Your task to perform on an android device: check data usage Image 0: 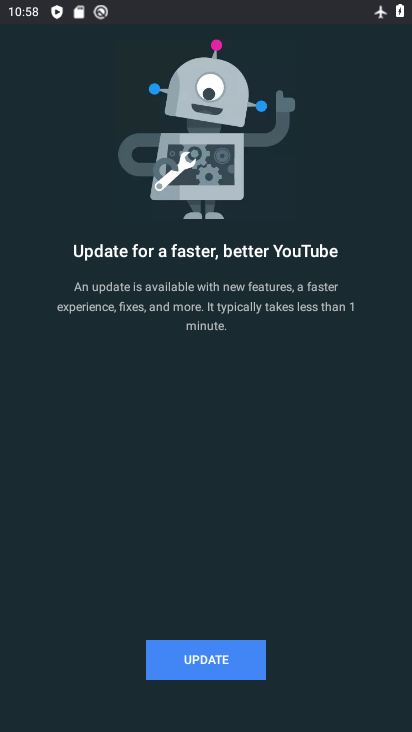
Step 0: press home button
Your task to perform on an android device: check data usage Image 1: 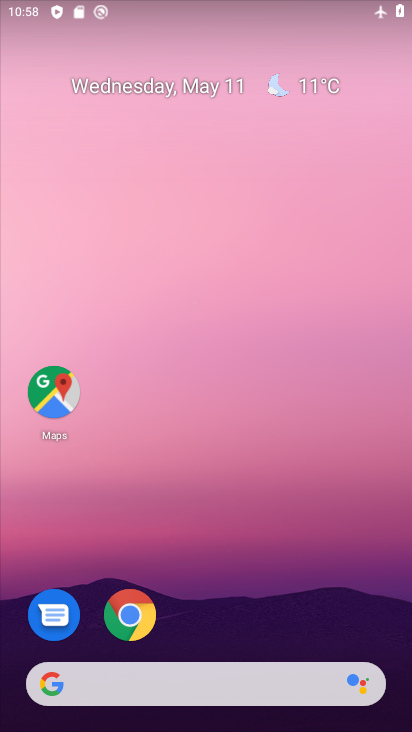
Step 1: drag from (288, 581) to (234, 43)
Your task to perform on an android device: check data usage Image 2: 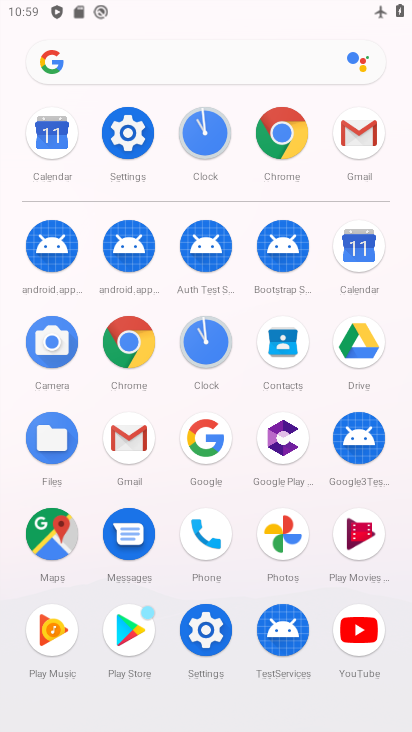
Step 2: click (138, 132)
Your task to perform on an android device: check data usage Image 3: 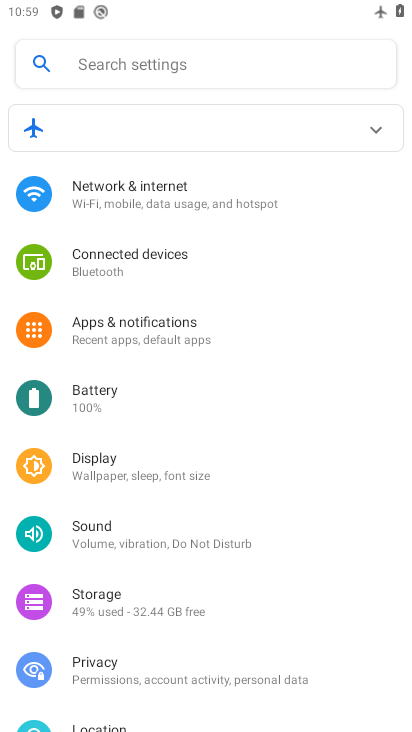
Step 3: click (122, 183)
Your task to perform on an android device: check data usage Image 4: 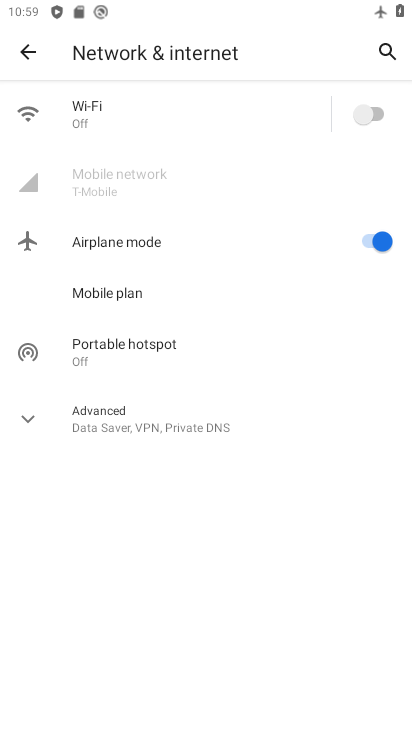
Step 4: click (128, 143)
Your task to perform on an android device: check data usage Image 5: 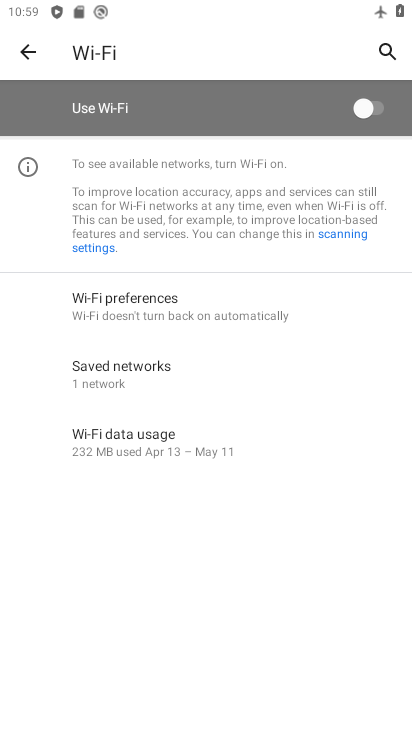
Step 5: click (127, 435)
Your task to perform on an android device: check data usage Image 6: 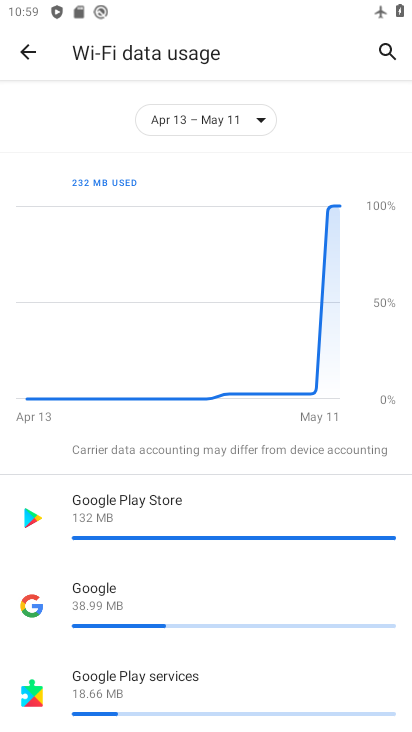
Step 6: task complete